Your task to perform on an android device: Search for Mexican restaurants on Maps Image 0: 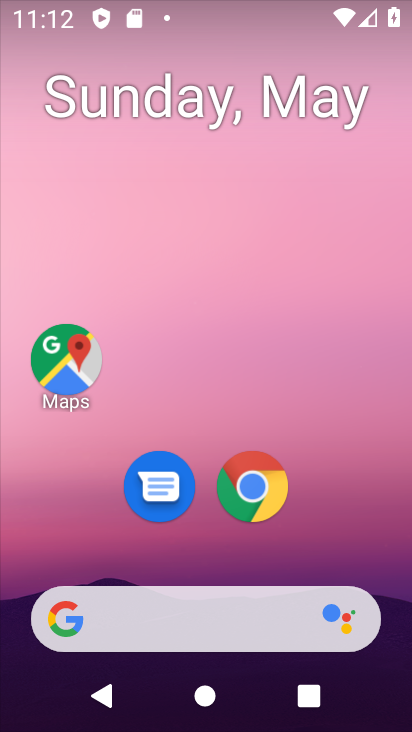
Step 0: click (85, 345)
Your task to perform on an android device: Search for Mexican restaurants on Maps Image 1: 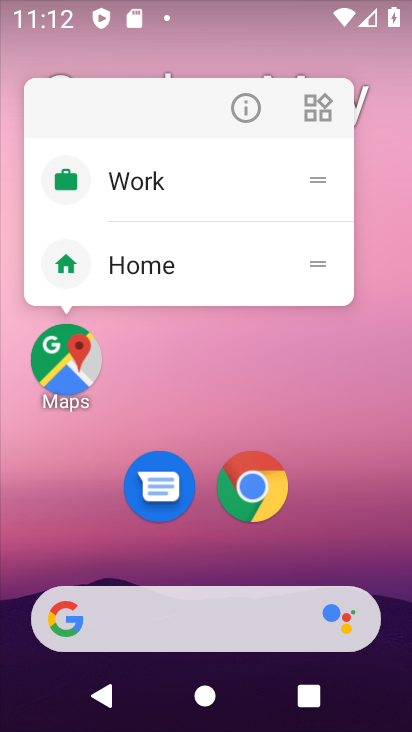
Step 1: click (85, 345)
Your task to perform on an android device: Search for Mexican restaurants on Maps Image 2: 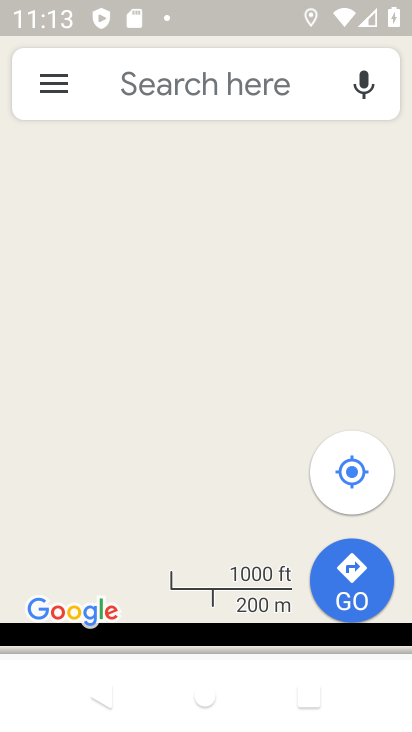
Step 2: click (208, 79)
Your task to perform on an android device: Search for Mexican restaurants on Maps Image 3: 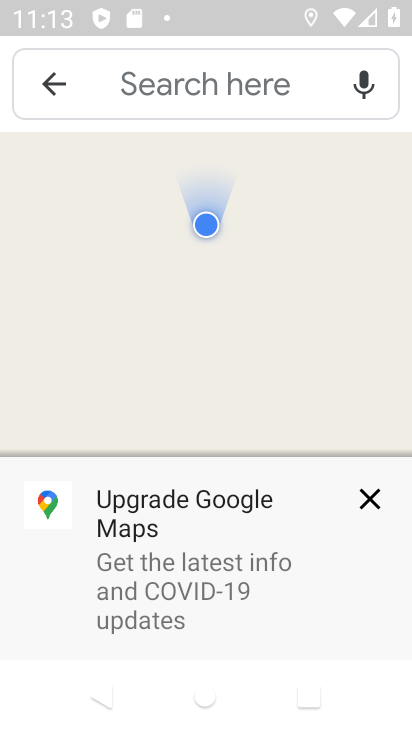
Step 3: click (149, 80)
Your task to perform on an android device: Search for Mexican restaurants on Maps Image 4: 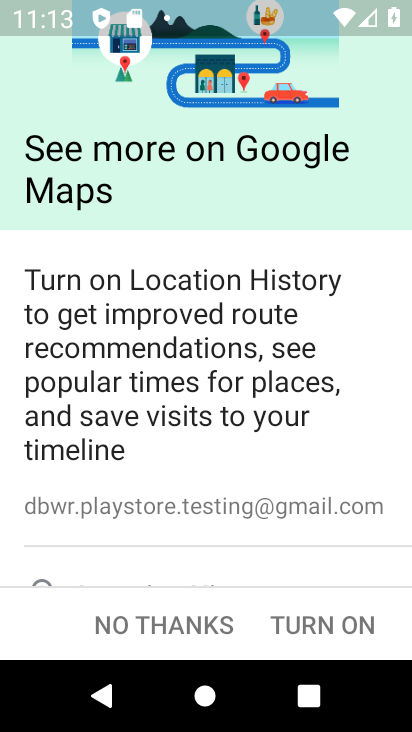
Step 4: type "mexican restaurants"
Your task to perform on an android device: Search for Mexican restaurants on Maps Image 5: 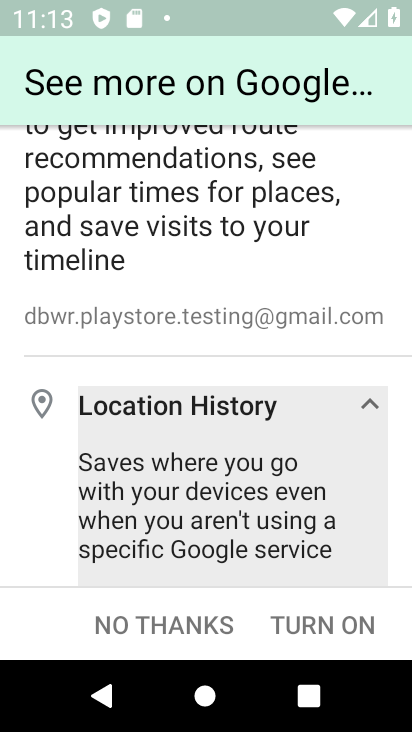
Step 5: click (360, 637)
Your task to perform on an android device: Search for Mexican restaurants on Maps Image 6: 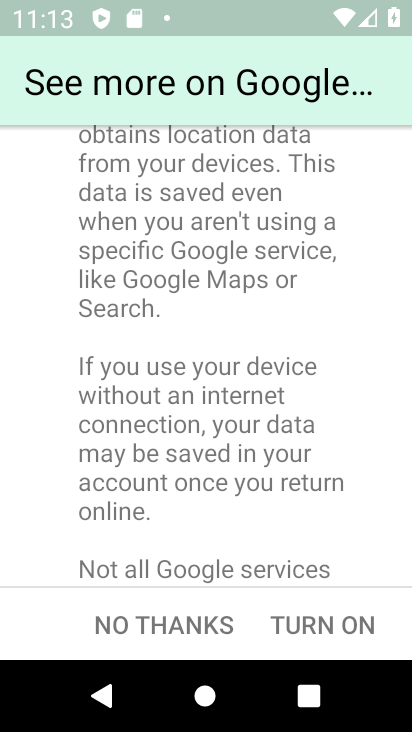
Step 6: click (360, 637)
Your task to perform on an android device: Search for Mexican restaurants on Maps Image 7: 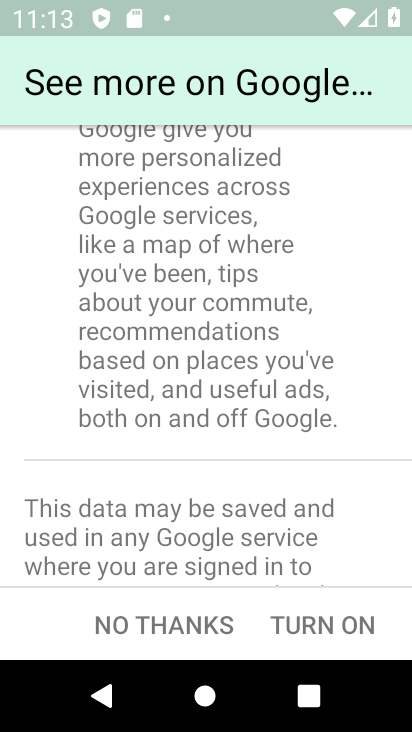
Step 7: click (360, 637)
Your task to perform on an android device: Search for Mexican restaurants on Maps Image 8: 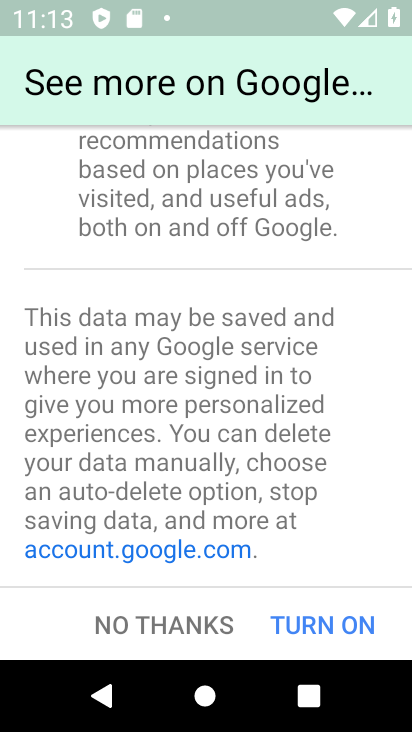
Step 8: click (345, 614)
Your task to perform on an android device: Search for Mexican restaurants on Maps Image 9: 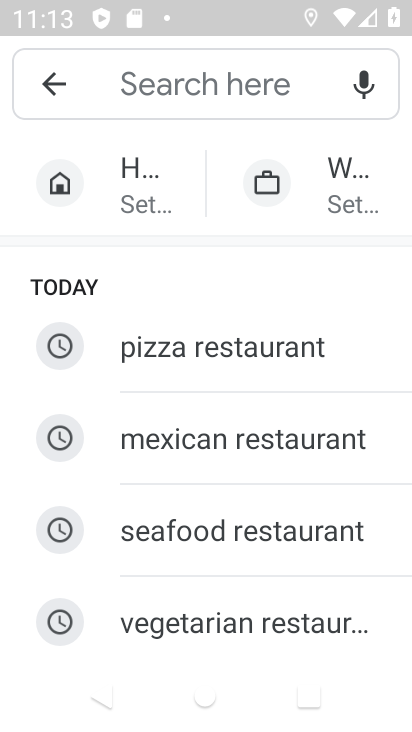
Step 9: click (172, 82)
Your task to perform on an android device: Search for Mexican restaurants on Maps Image 10: 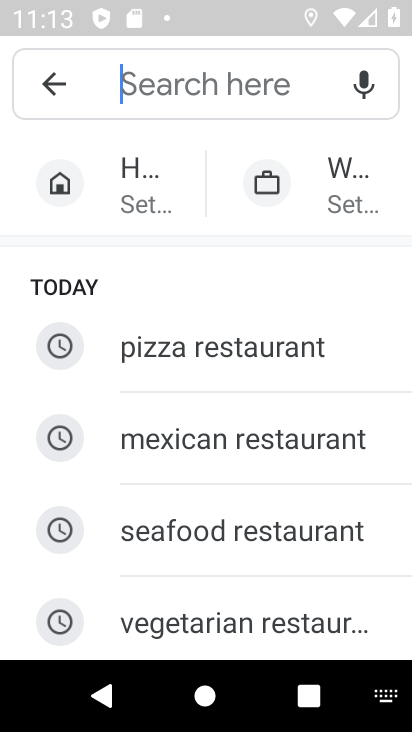
Step 10: type "mexican restaurants"
Your task to perform on an android device: Search for Mexican restaurants on Maps Image 11: 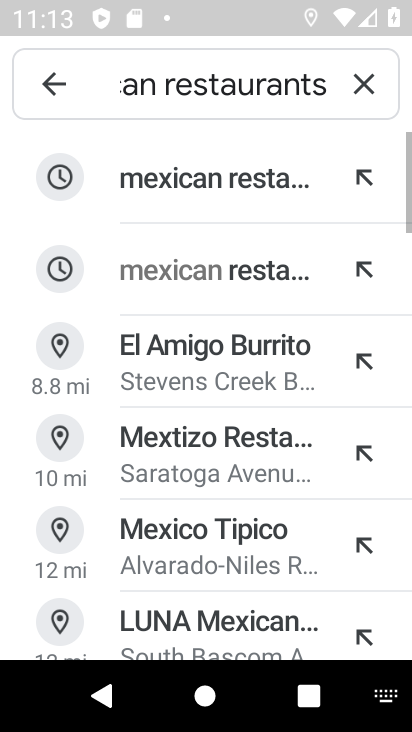
Step 11: task complete